Your task to perform on an android device: Open eBay Image 0: 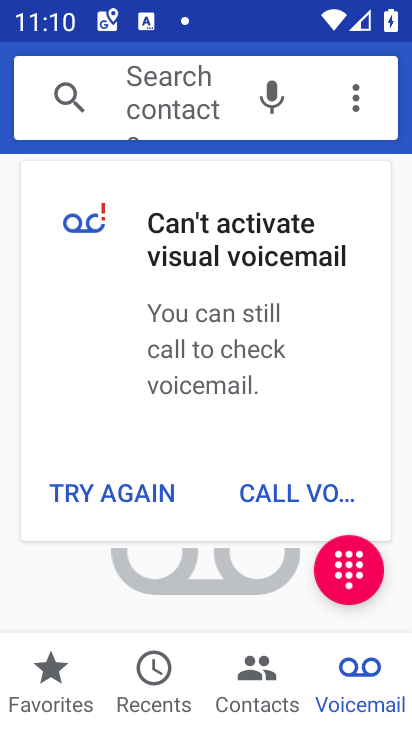
Step 0: press home button
Your task to perform on an android device: Open eBay Image 1: 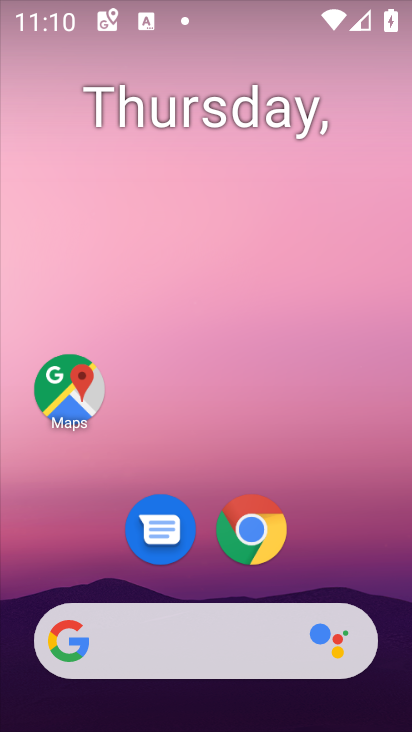
Step 1: click (256, 538)
Your task to perform on an android device: Open eBay Image 2: 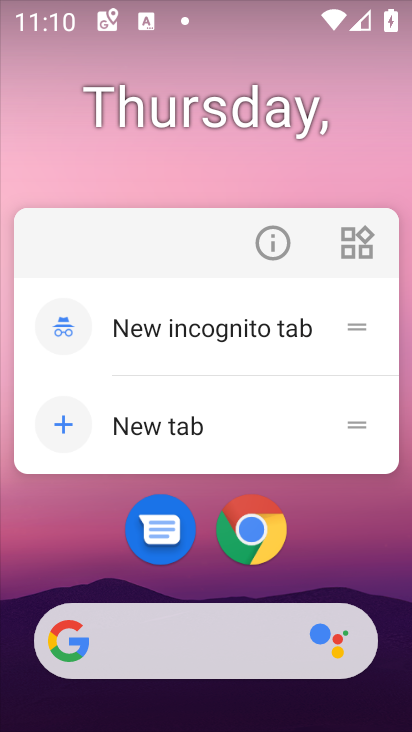
Step 2: click (257, 537)
Your task to perform on an android device: Open eBay Image 3: 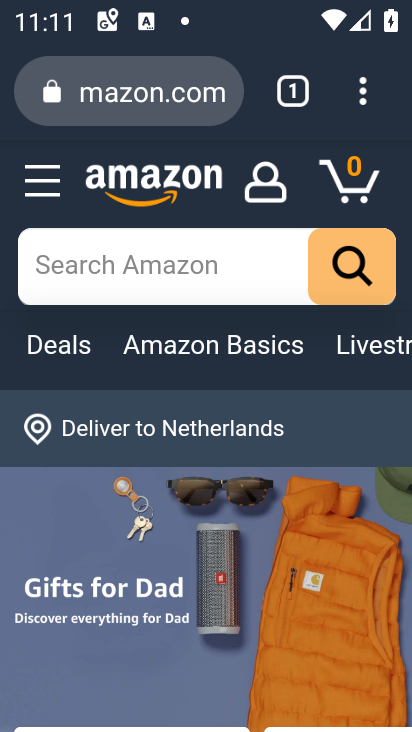
Step 3: click (180, 87)
Your task to perform on an android device: Open eBay Image 4: 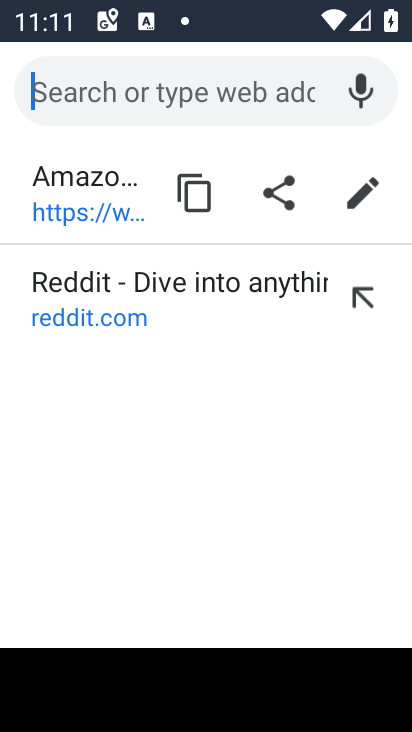
Step 4: type "ebay"
Your task to perform on an android device: Open eBay Image 5: 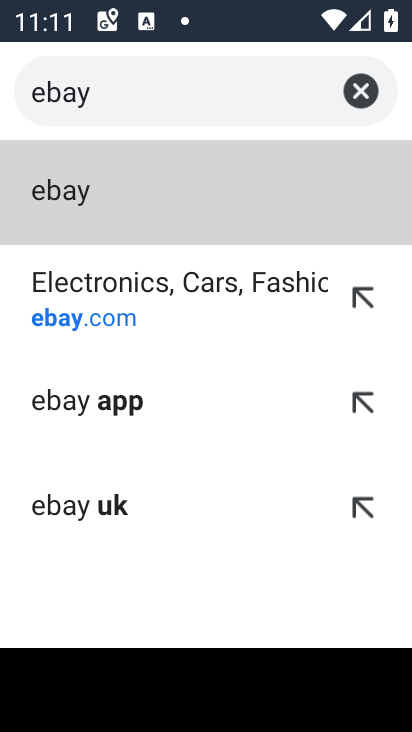
Step 5: click (171, 306)
Your task to perform on an android device: Open eBay Image 6: 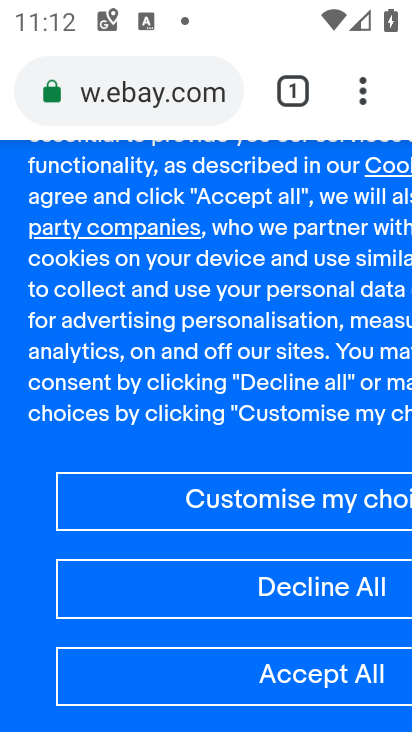
Step 6: task complete